Your task to perform on an android device: check google app version Image 0: 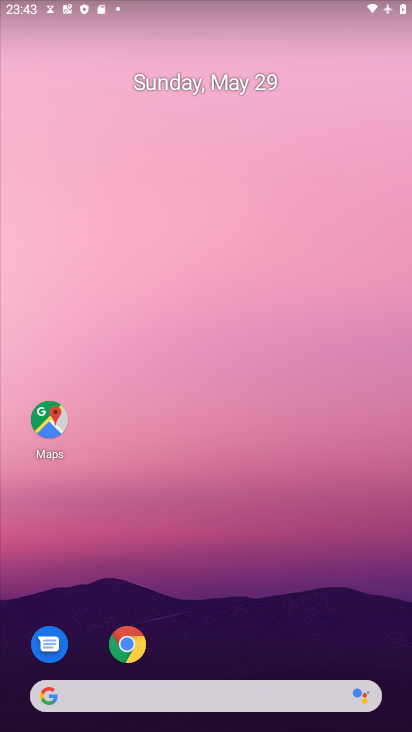
Step 0: drag from (267, 638) to (269, 241)
Your task to perform on an android device: check google app version Image 1: 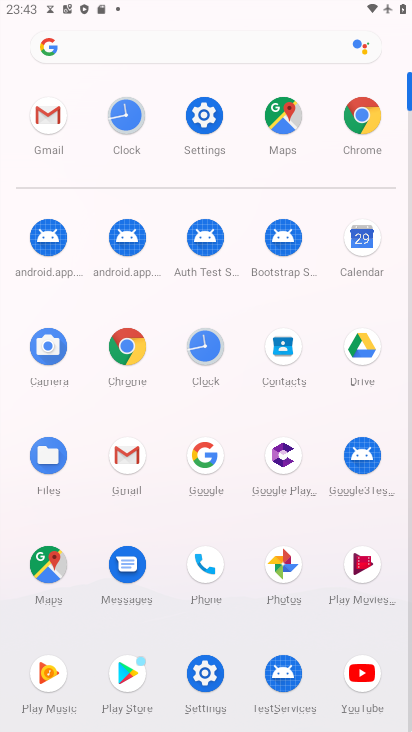
Step 1: click (203, 454)
Your task to perform on an android device: check google app version Image 2: 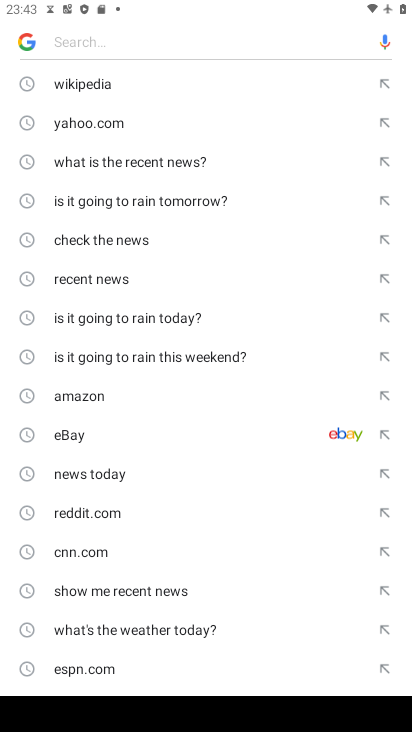
Step 2: click (24, 34)
Your task to perform on an android device: check google app version Image 3: 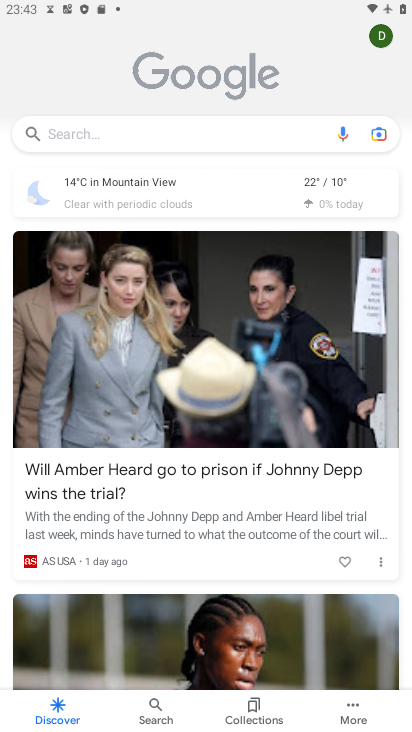
Step 3: click (359, 703)
Your task to perform on an android device: check google app version Image 4: 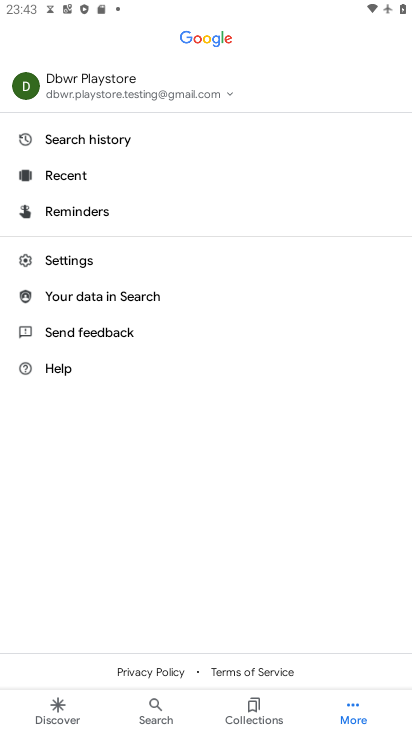
Step 4: click (349, 701)
Your task to perform on an android device: check google app version Image 5: 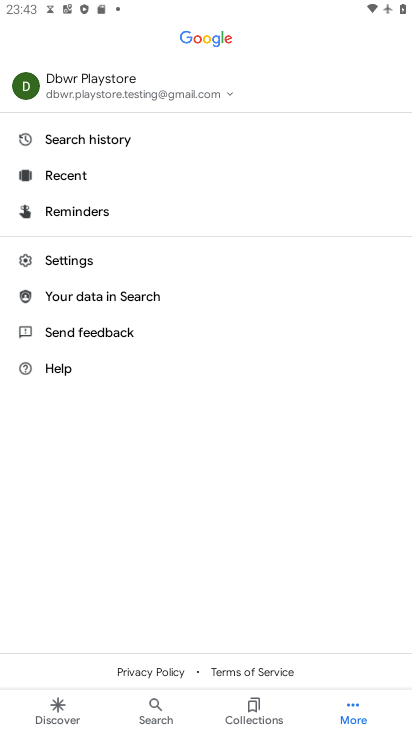
Step 5: click (349, 704)
Your task to perform on an android device: check google app version Image 6: 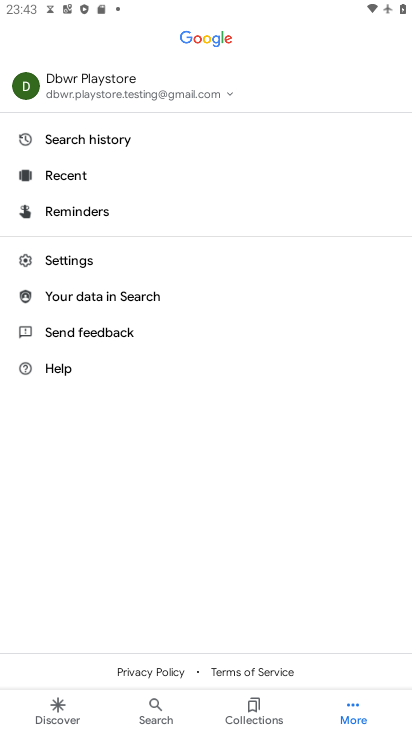
Step 6: click (101, 257)
Your task to perform on an android device: check google app version Image 7: 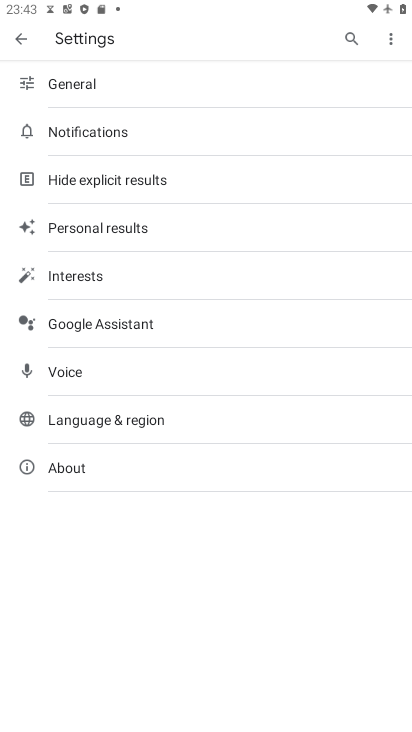
Step 7: click (114, 474)
Your task to perform on an android device: check google app version Image 8: 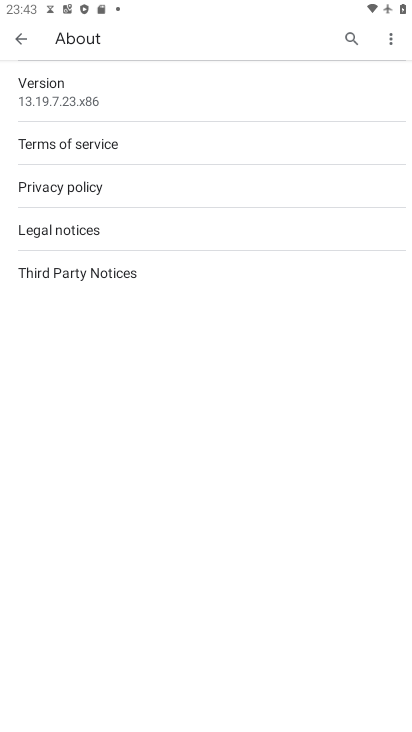
Step 8: task complete